Your task to perform on an android device: Go to sound settings Image 0: 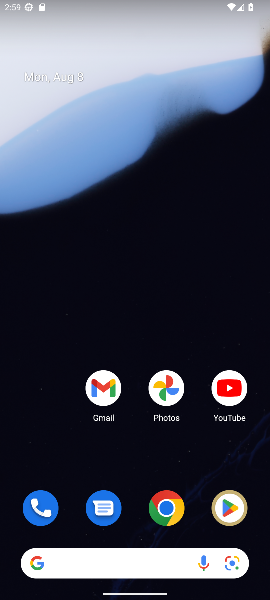
Step 0: drag from (77, 448) to (78, 4)
Your task to perform on an android device: Go to sound settings Image 1: 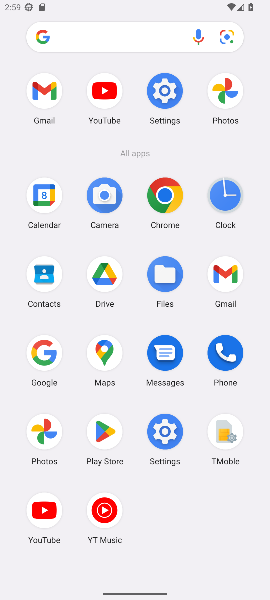
Step 1: click (165, 431)
Your task to perform on an android device: Go to sound settings Image 2: 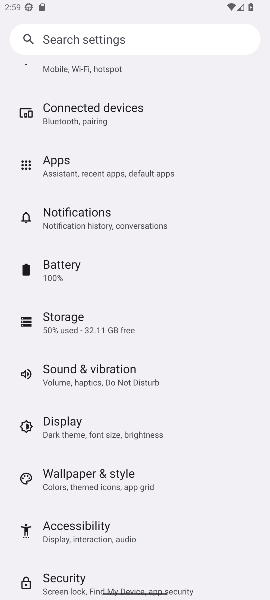
Step 2: click (77, 365)
Your task to perform on an android device: Go to sound settings Image 3: 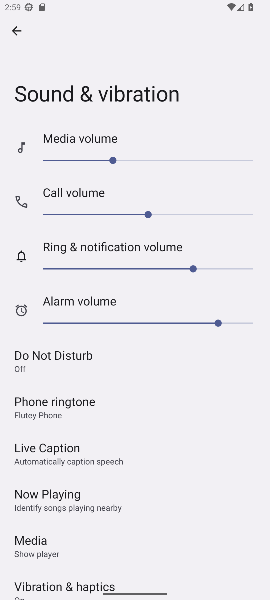
Step 3: task complete